Your task to perform on an android device: Check the news Image 0: 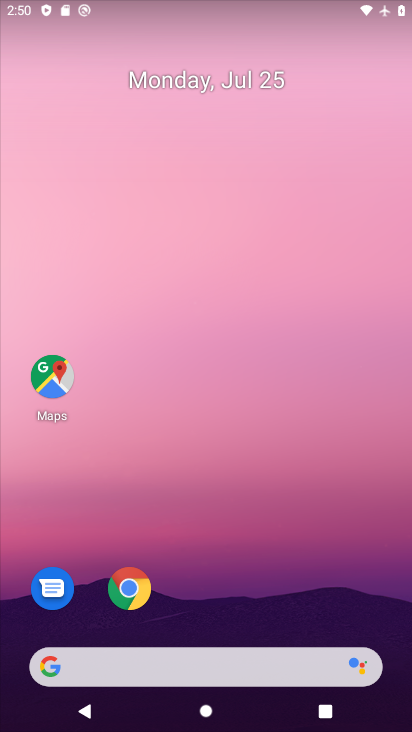
Step 0: drag from (1, 227) to (369, 211)
Your task to perform on an android device: Check the news Image 1: 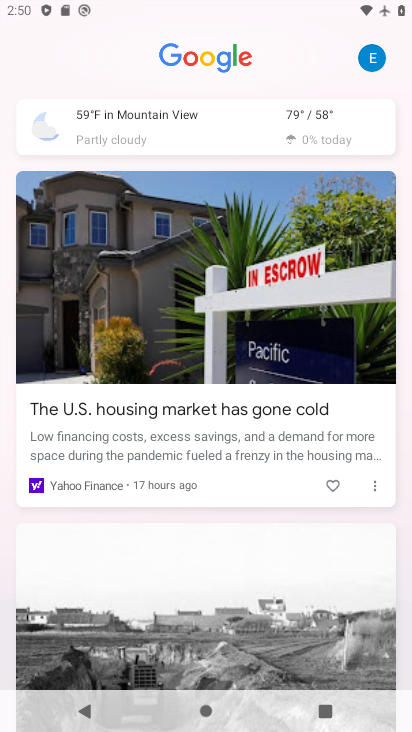
Step 1: task complete